Your task to perform on an android device: Show me the alarms in the clock app Image 0: 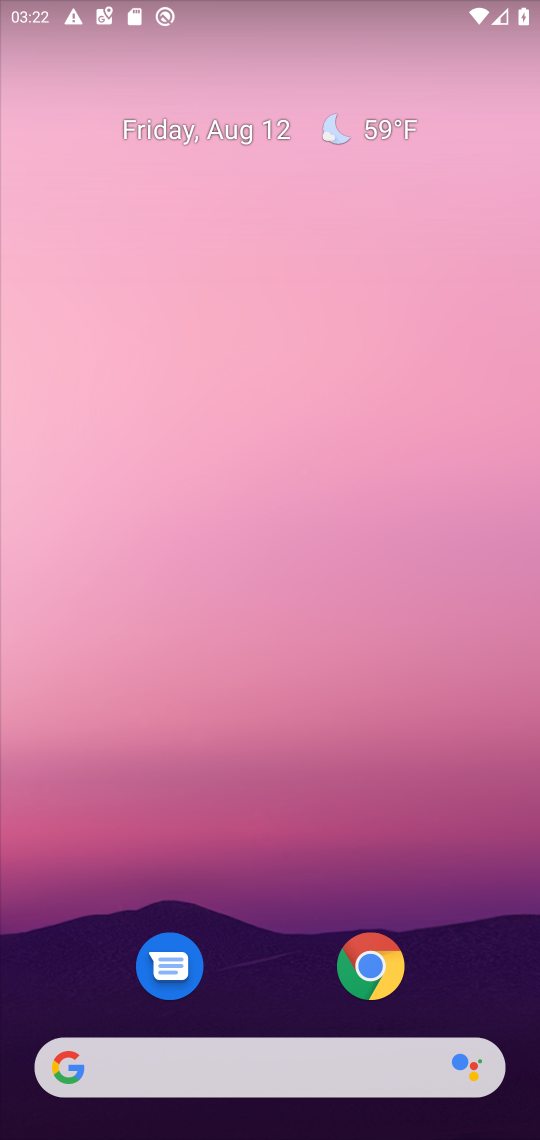
Step 0: drag from (268, 739) to (326, 48)
Your task to perform on an android device: Show me the alarms in the clock app Image 1: 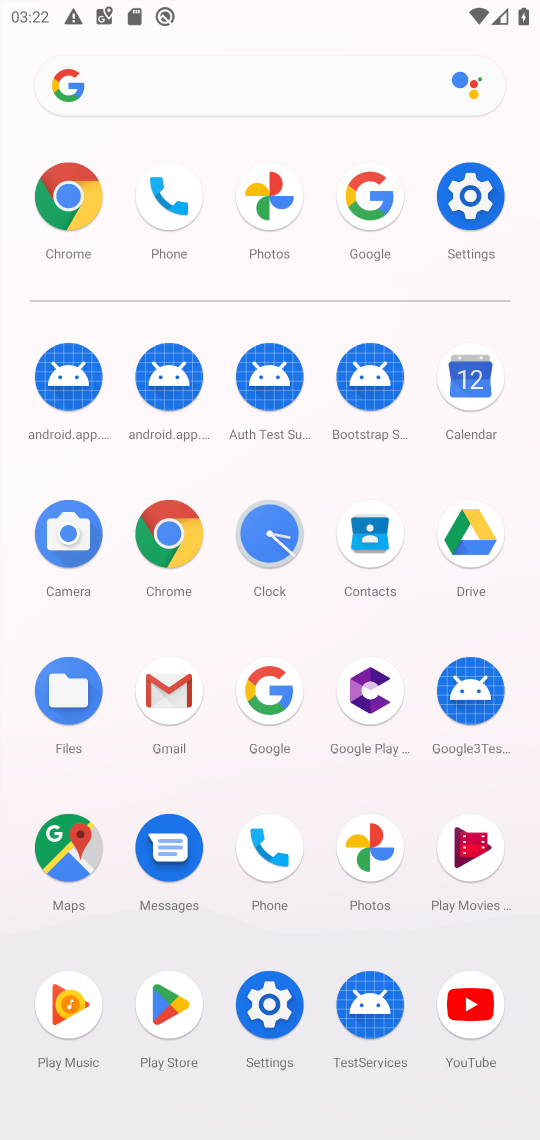
Step 1: click (262, 527)
Your task to perform on an android device: Show me the alarms in the clock app Image 2: 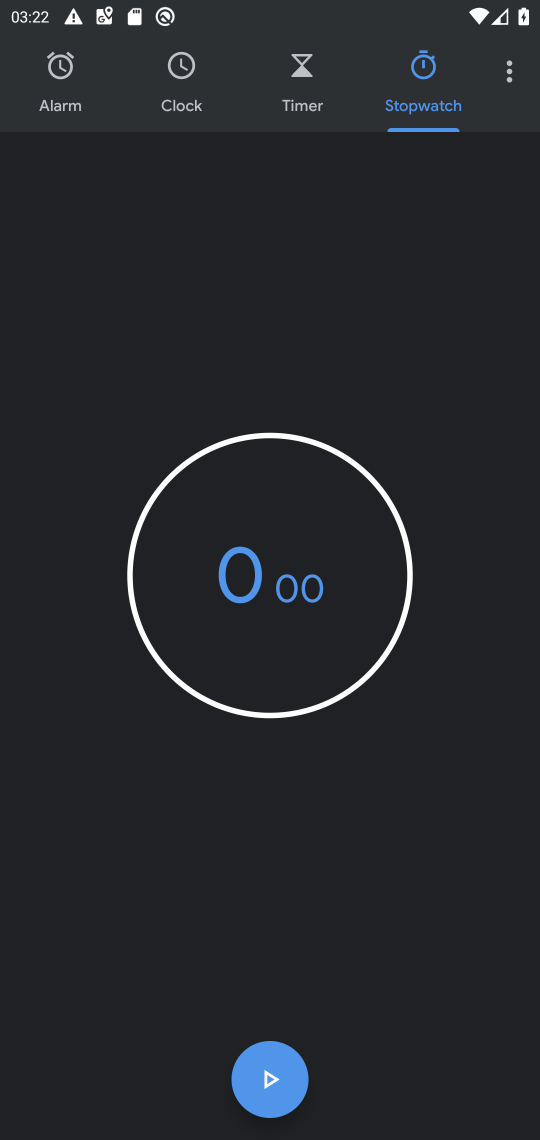
Step 2: click (72, 73)
Your task to perform on an android device: Show me the alarms in the clock app Image 3: 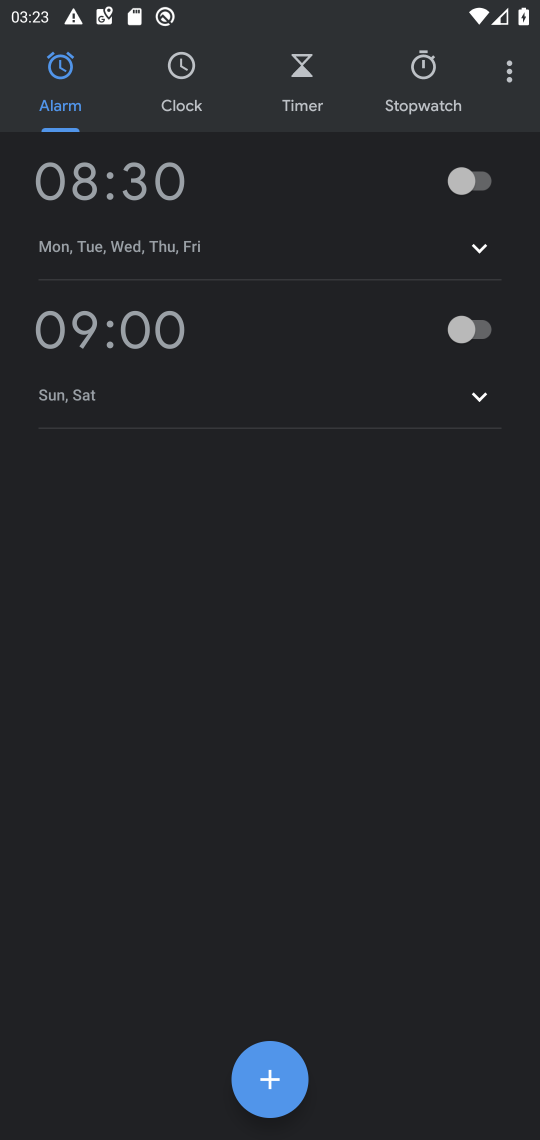
Step 3: task complete